Your task to perform on an android device: Go to wifi settings Image 0: 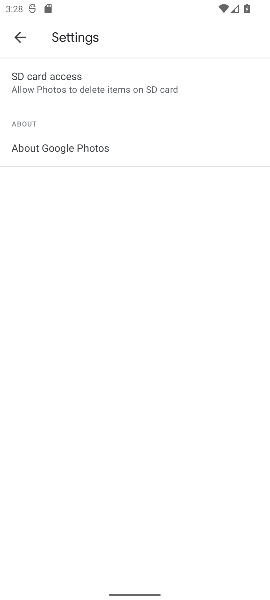
Step 0: task complete